Your task to perform on an android device: Clear the cart on costco. Add "lenovo thinkpad" to the cart on costco Image 0: 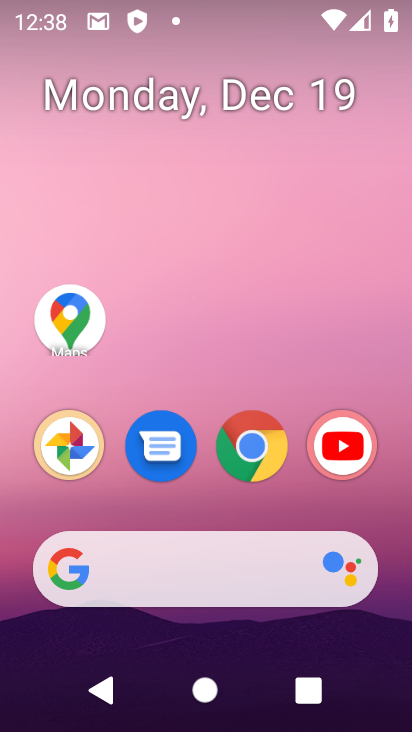
Step 0: click (244, 440)
Your task to perform on an android device: Clear the cart on costco. Add "lenovo thinkpad" to the cart on costco Image 1: 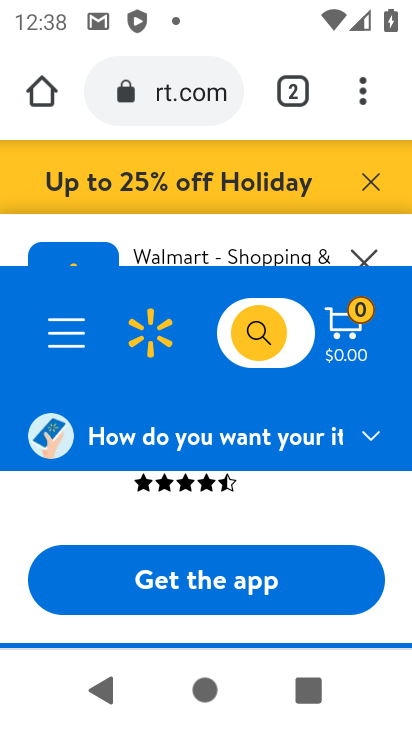
Step 1: click (181, 98)
Your task to perform on an android device: Clear the cart on costco. Add "lenovo thinkpad" to the cart on costco Image 2: 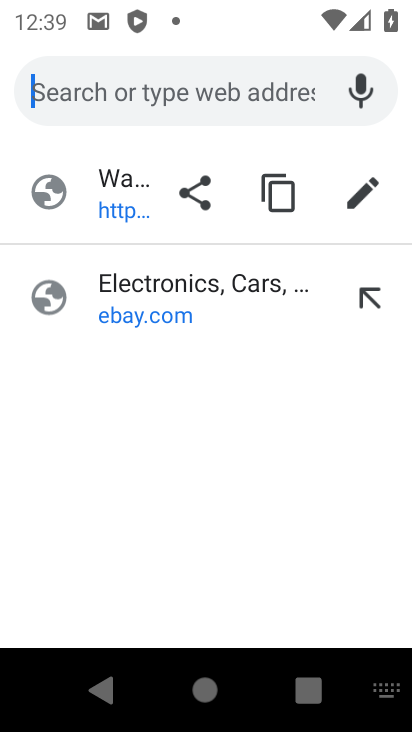
Step 2: type "costco"
Your task to perform on an android device: Clear the cart on costco. Add "lenovo thinkpad" to the cart on costco Image 3: 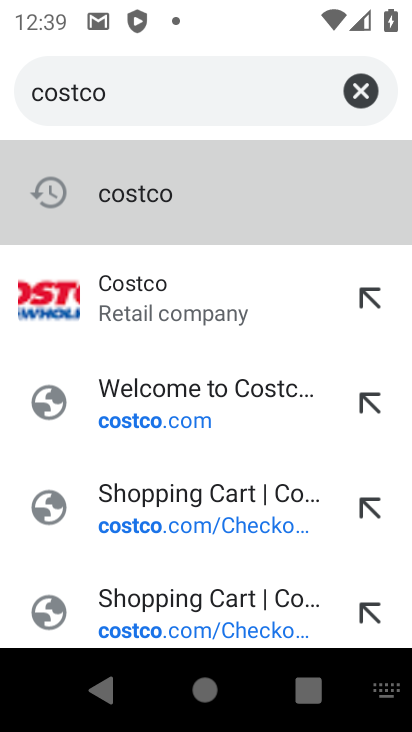
Step 3: click (211, 316)
Your task to perform on an android device: Clear the cart on costco. Add "lenovo thinkpad" to the cart on costco Image 4: 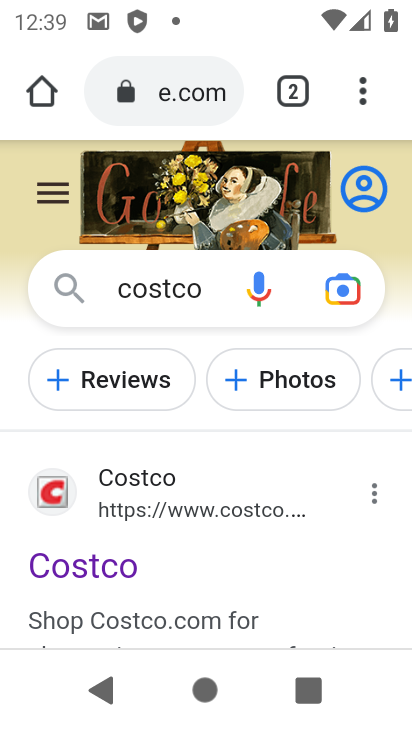
Step 4: click (76, 548)
Your task to perform on an android device: Clear the cart on costco. Add "lenovo thinkpad" to the cart on costco Image 5: 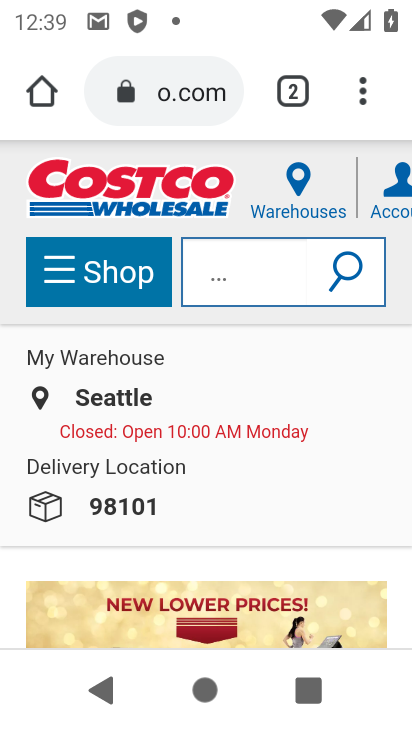
Step 5: click (242, 271)
Your task to perform on an android device: Clear the cart on costco. Add "lenovo thinkpad" to the cart on costco Image 6: 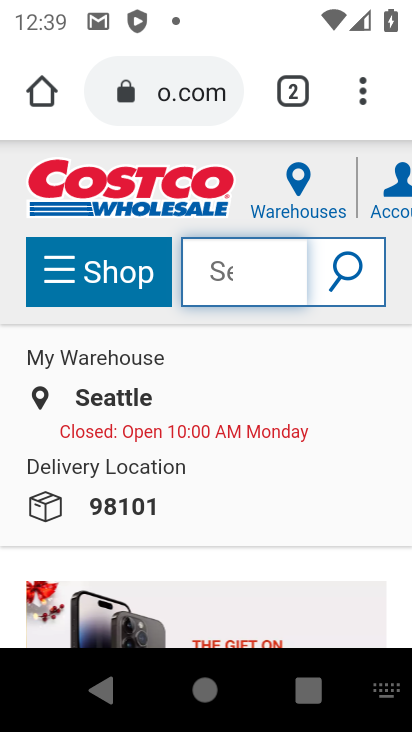
Step 6: type "lenovo thinkpad"
Your task to perform on an android device: Clear the cart on costco. Add "lenovo thinkpad" to the cart on costco Image 7: 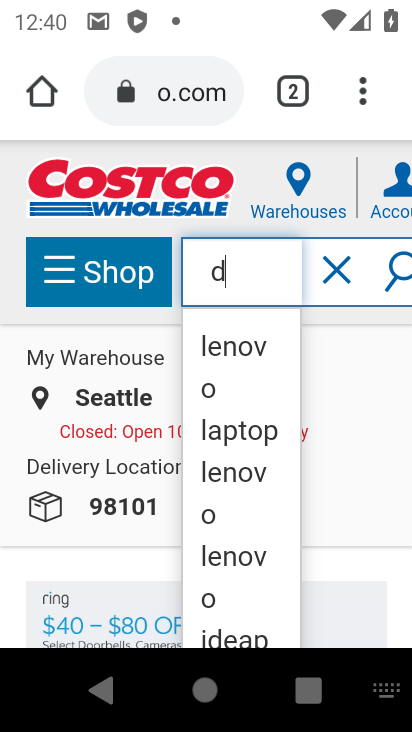
Step 7: click (393, 259)
Your task to perform on an android device: Clear the cart on costco. Add "lenovo thinkpad" to the cart on costco Image 8: 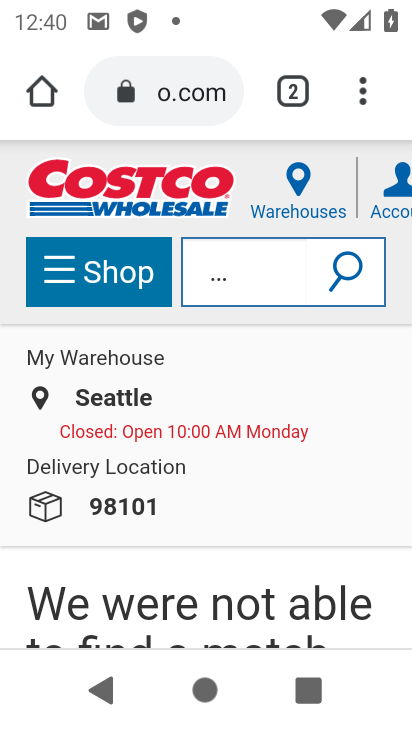
Step 8: task complete